Your task to perform on an android device: turn vacation reply on in the gmail app Image 0: 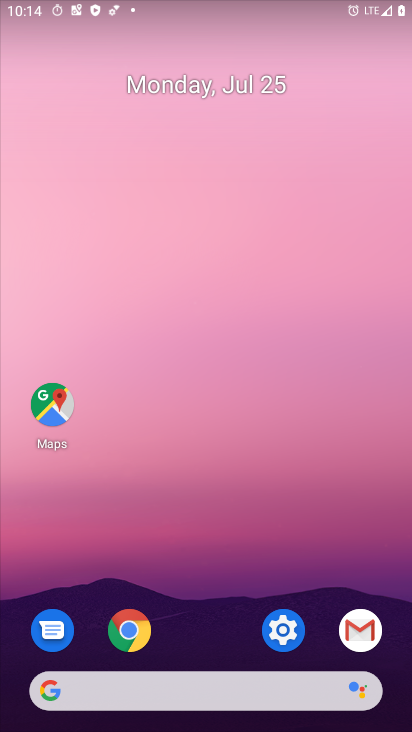
Step 0: click (369, 638)
Your task to perform on an android device: turn vacation reply on in the gmail app Image 1: 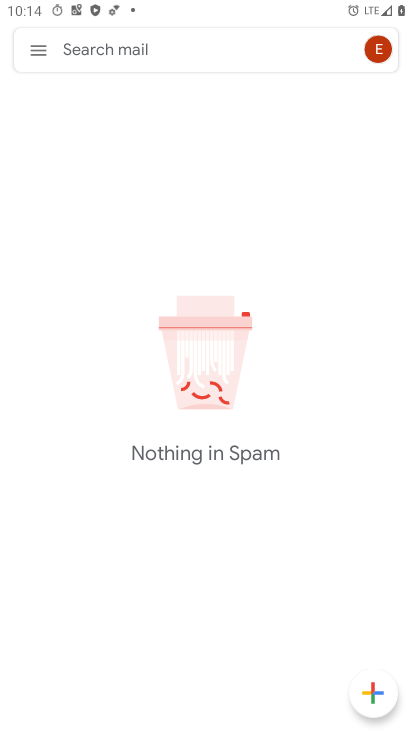
Step 1: click (42, 56)
Your task to perform on an android device: turn vacation reply on in the gmail app Image 2: 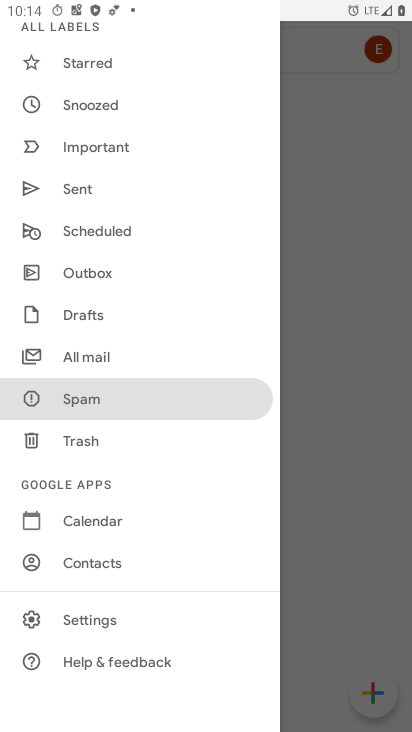
Step 2: click (101, 617)
Your task to perform on an android device: turn vacation reply on in the gmail app Image 3: 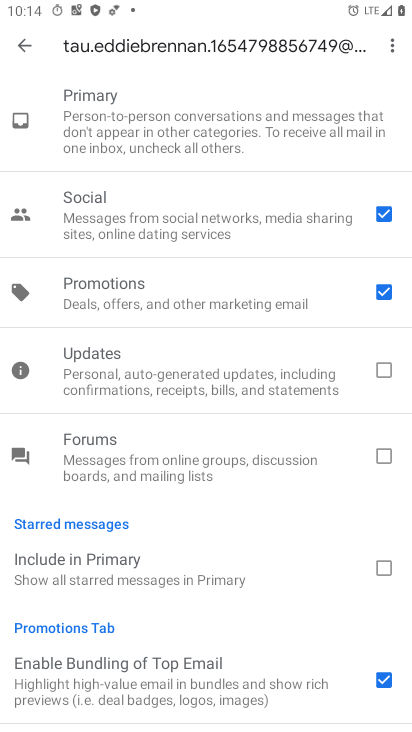
Step 3: click (19, 45)
Your task to perform on an android device: turn vacation reply on in the gmail app Image 4: 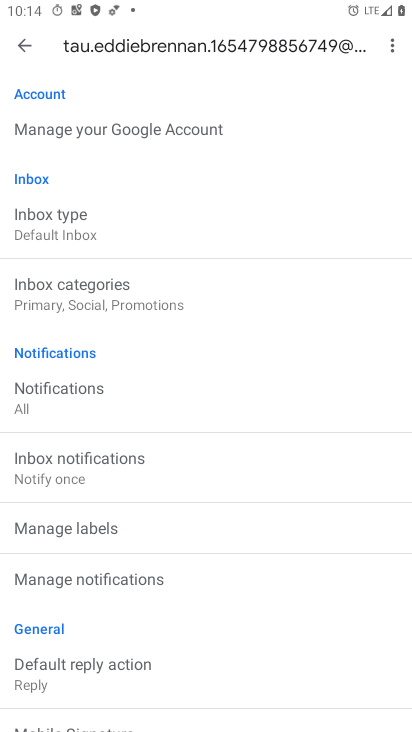
Step 4: drag from (192, 624) to (251, 106)
Your task to perform on an android device: turn vacation reply on in the gmail app Image 5: 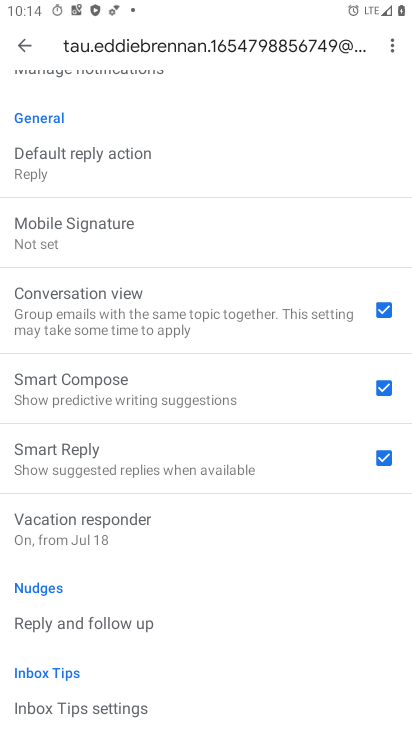
Step 5: click (167, 528)
Your task to perform on an android device: turn vacation reply on in the gmail app Image 6: 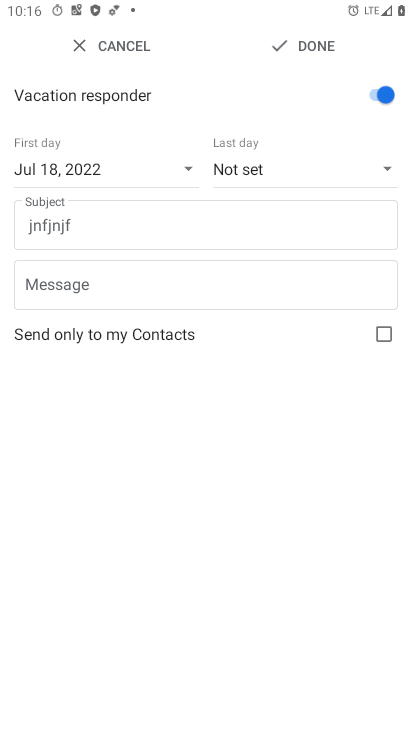
Step 6: task complete